Your task to perform on an android device: Go to CNN.com Image 0: 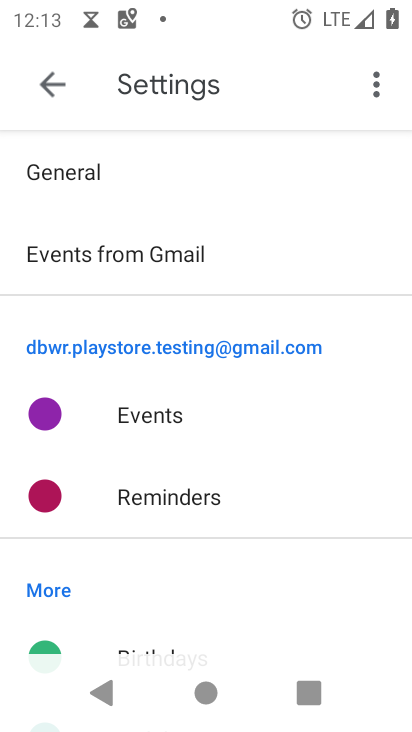
Step 0: press home button
Your task to perform on an android device: Go to CNN.com Image 1: 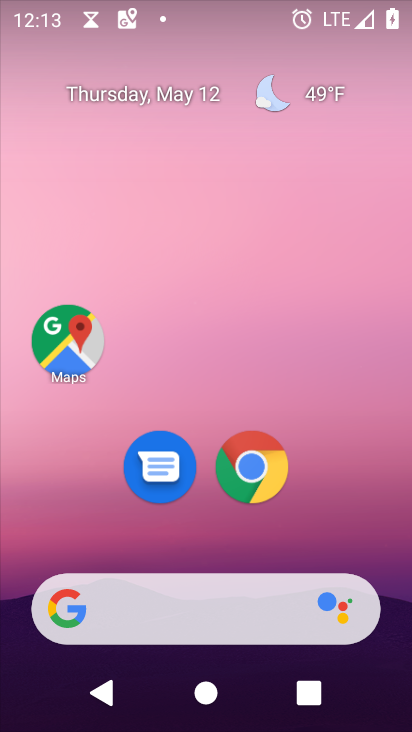
Step 1: click (250, 477)
Your task to perform on an android device: Go to CNN.com Image 2: 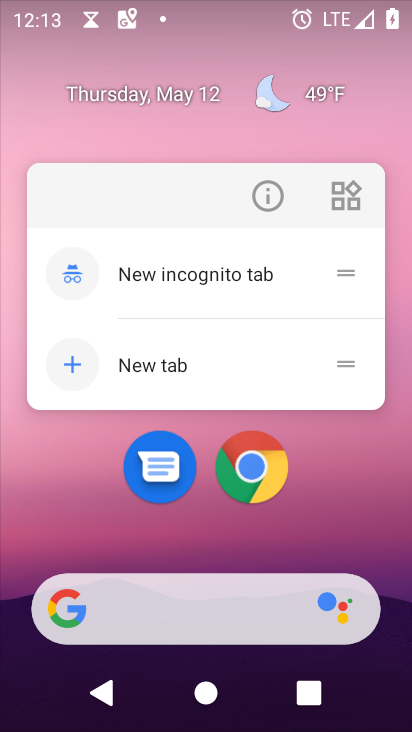
Step 2: click (254, 476)
Your task to perform on an android device: Go to CNN.com Image 3: 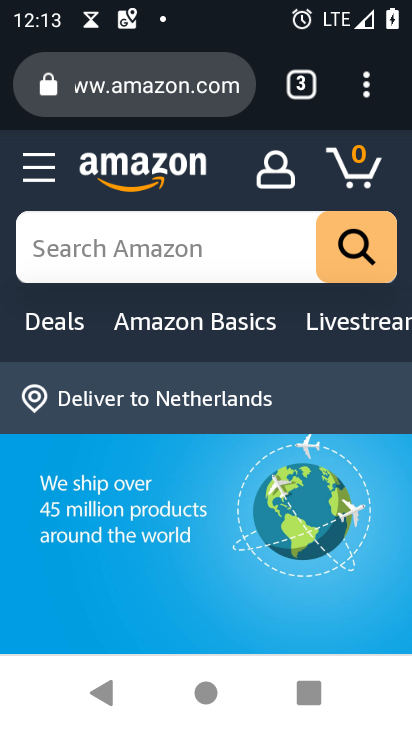
Step 3: drag from (362, 93) to (278, 159)
Your task to perform on an android device: Go to CNN.com Image 4: 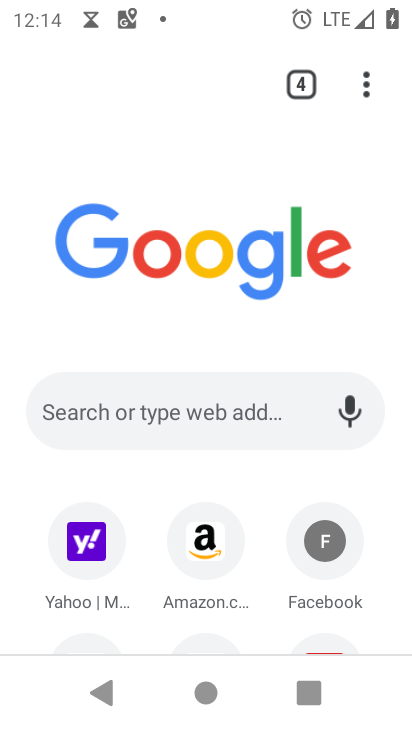
Step 4: drag from (285, 516) to (216, 388)
Your task to perform on an android device: Go to CNN.com Image 5: 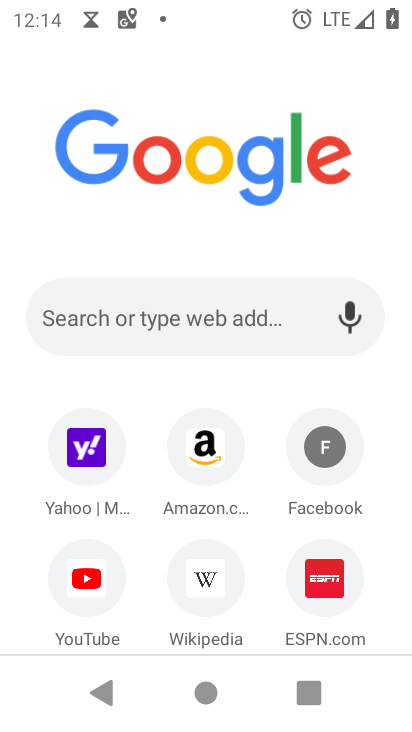
Step 5: click (169, 324)
Your task to perform on an android device: Go to CNN.com Image 6: 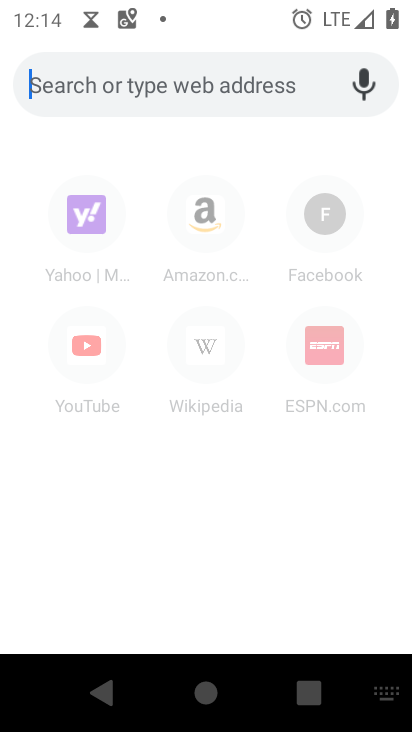
Step 6: type "cnn.com"
Your task to perform on an android device: Go to CNN.com Image 7: 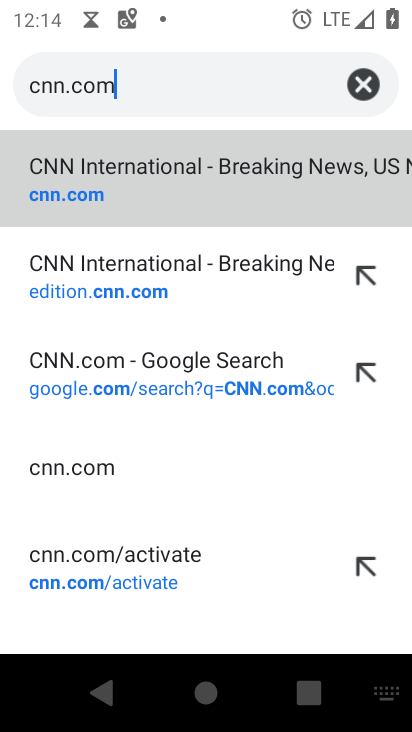
Step 7: click (259, 184)
Your task to perform on an android device: Go to CNN.com Image 8: 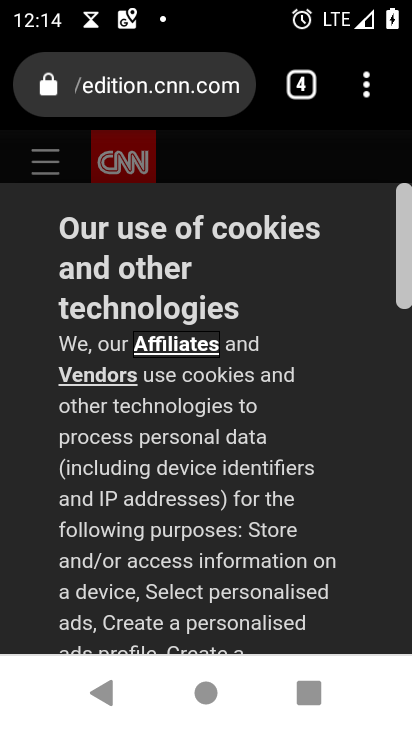
Step 8: task complete